Your task to perform on an android device: Play the last video I watched on Youtube Image 0: 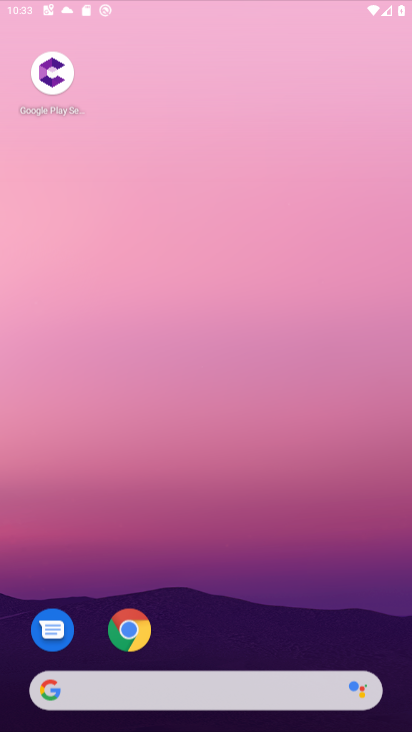
Step 0: drag from (263, 529) to (266, 202)
Your task to perform on an android device: Play the last video I watched on Youtube Image 1: 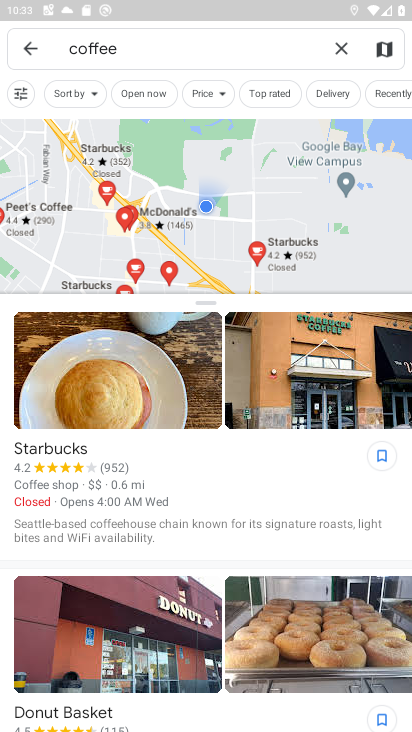
Step 1: press home button
Your task to perform on an android device: Play the last video I watched on Youtube Image 2: 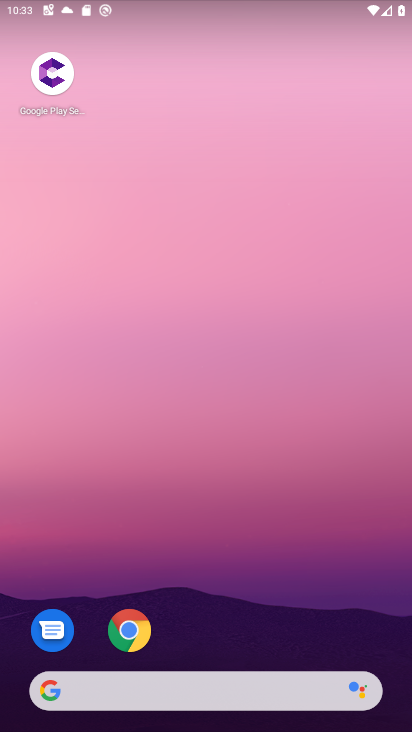
Step 2: drag from (262, 468) to (180, 67)
Your task to perform on an android device: Play the last video I watched on Youtube Image 3: 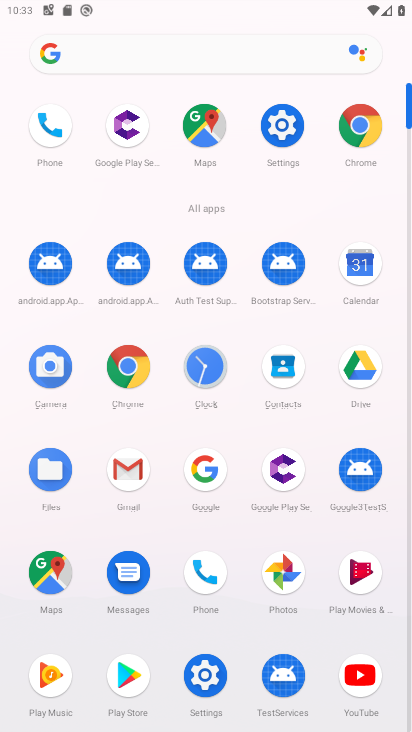
Step 3: click (361, 679)
Your task to perform on an android device: Play the last video I watched on Youtube Image 4: 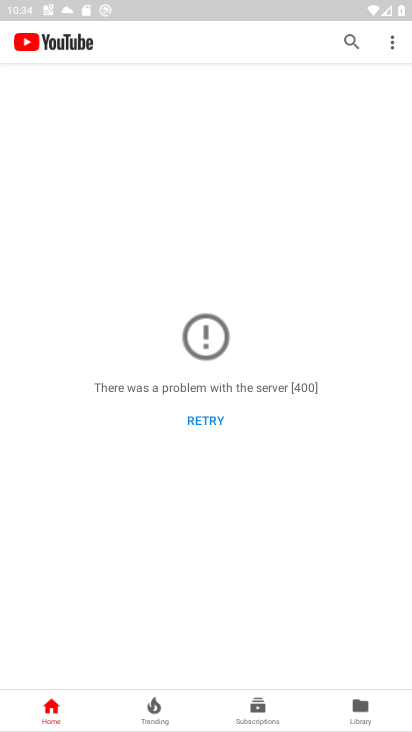
Step 4: click (222, 420)
Your task to perform on an android device: Play the last video I watched on Youtube Image 5: 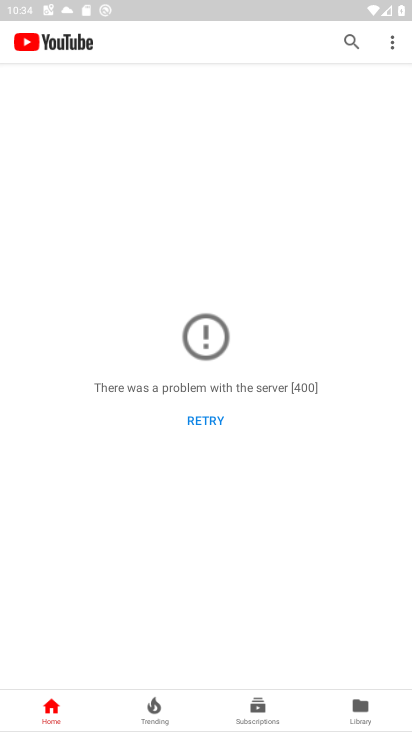
Step 5: task complete